Your task to perform on an android device: Go to location settings Image 0: 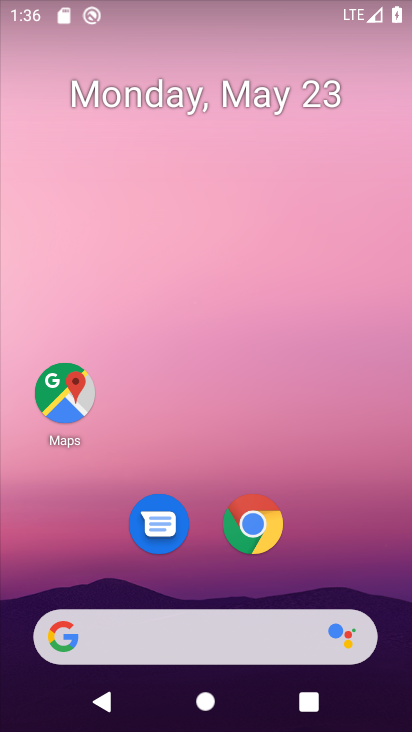
Step 0: drag from (203, 434) to (260, 29)
Your task to perform on an android device: Go to location settings Image 1: 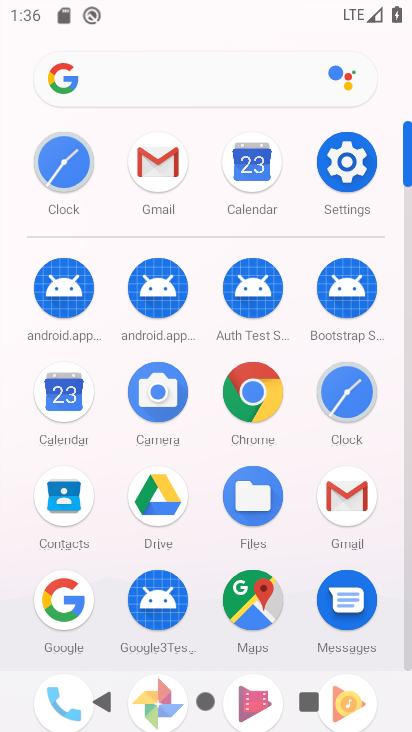
Step 1: click (336, 157)
Your task to perform on an android device: Go to location settings Image 2: 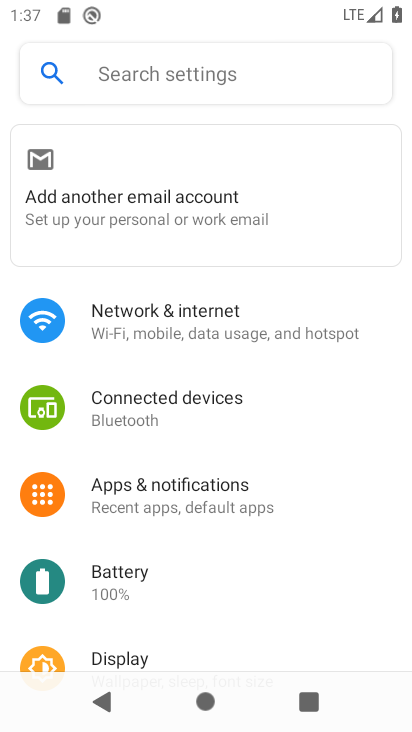
Step 2: drag from (225, 547) to (264, 140)
Your task to perform on an android device: Go to location settings Image 3: 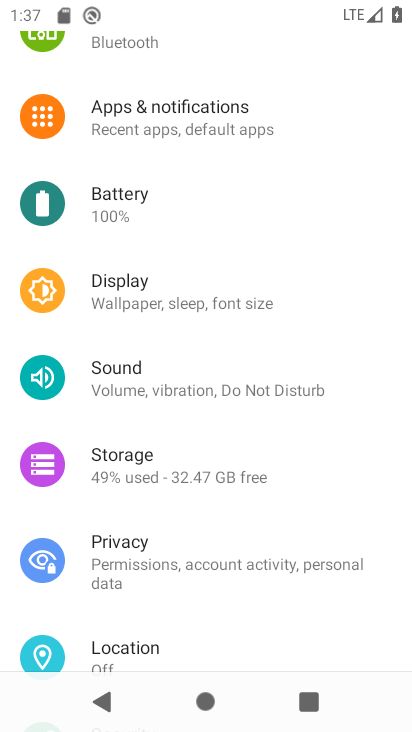
Step 3: drag from (223, 615) to (230, 337)
Your task to perform on an android device: Go to location settings Image 4: 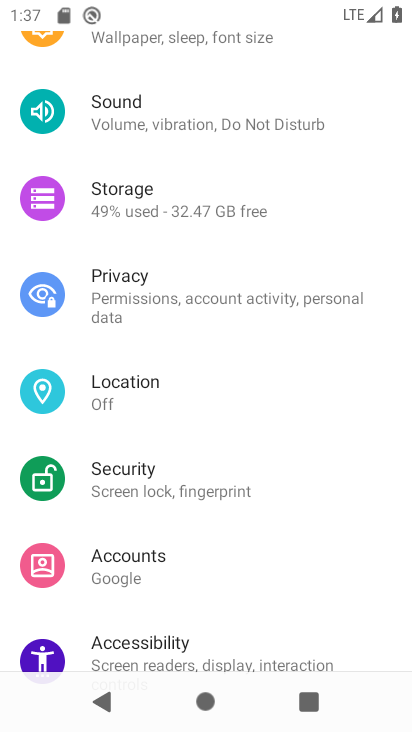
Step 4: click (206, 388)
Your task to perform on an android device: Go to location settings Image 5: 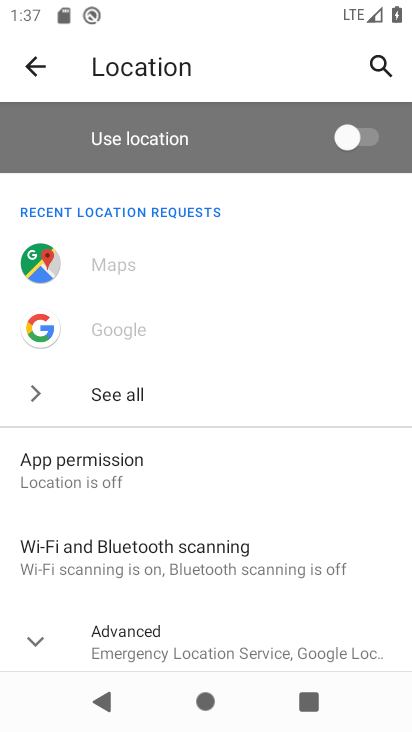
Step 5: task complete